Your task to perform on an android device: Show me recent news Image 0: 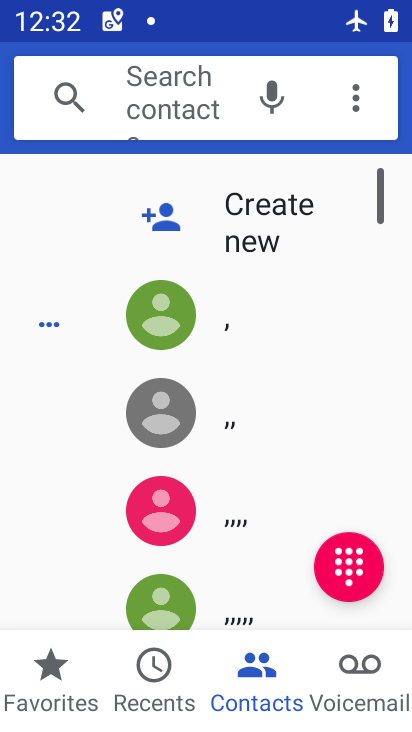
Step 0: press home button
Your task to perform on an android device: Show me recent news Image 1: 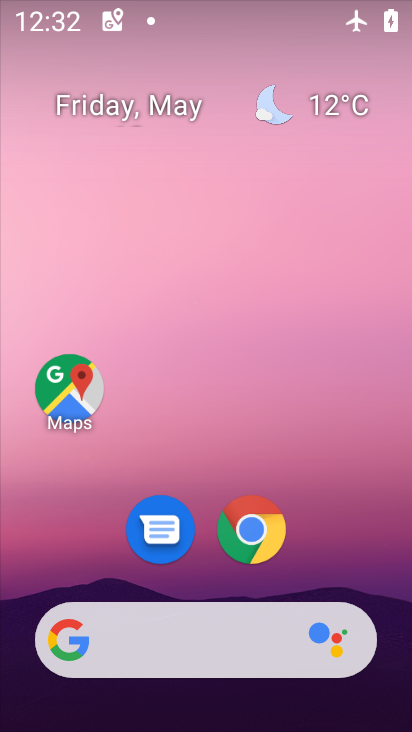
Step 1: drag from (354, 501) to (342, 224)
Your task to perform on an android device: Show me recent news Image 2: 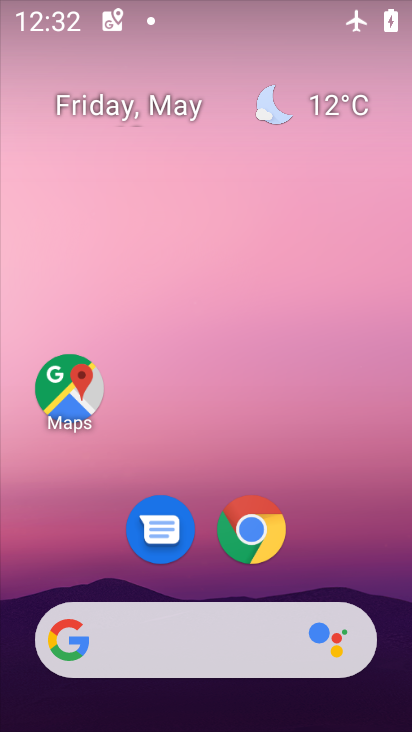
Step 2: drag from (324, 389) to (324, 222)
Your task to perform on an android device: Show me recent news Image 3: 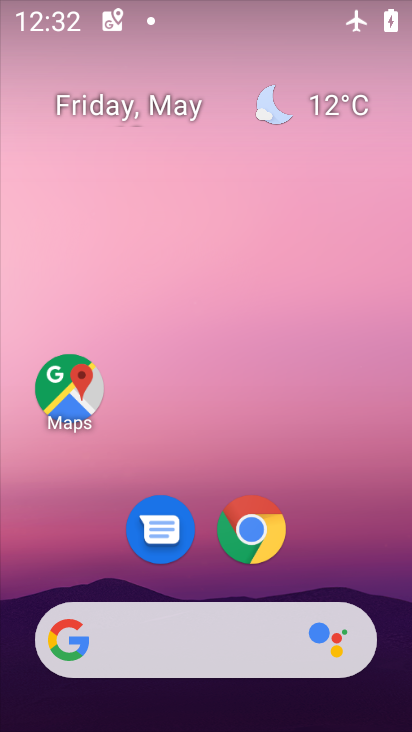
Step 3: drag from (220, 324) to (220, 237)
Your task to perform on an android device: Show me recent news Image 4: 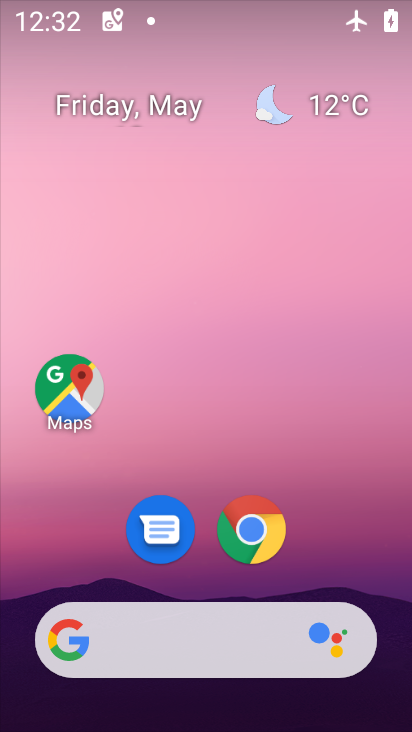
Step 4: drag from (190, 593) to (195, 250)
Your task to perform on an android device: Show me recent news Image 5: 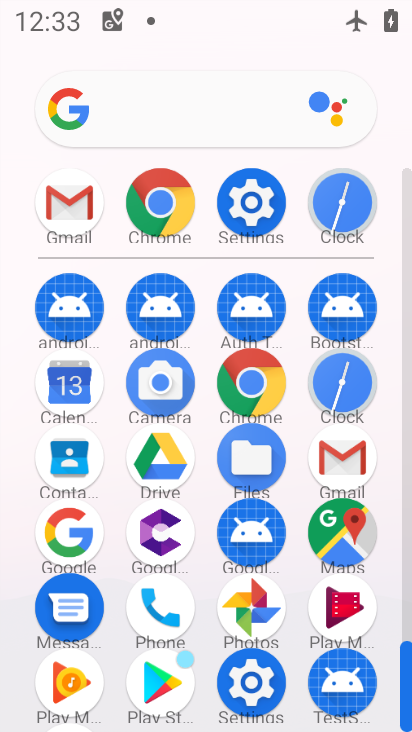
Step 5: click (250, 374)
Your task to perform on an android device: Show me recent news Image 6: 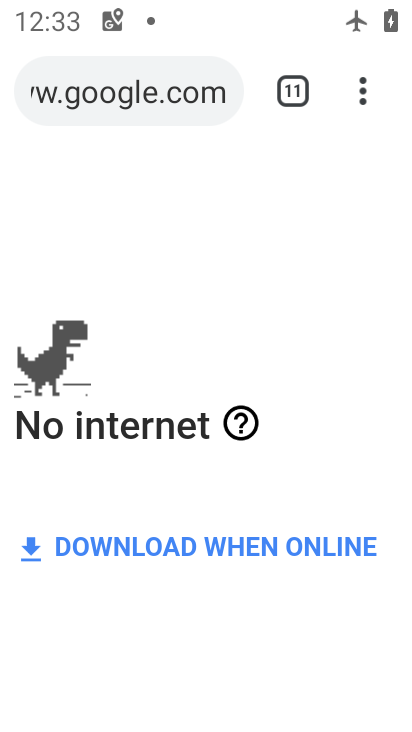
Step 6: click (352, 86)
Your task to perform on an android device: Show me recent news Image 7: 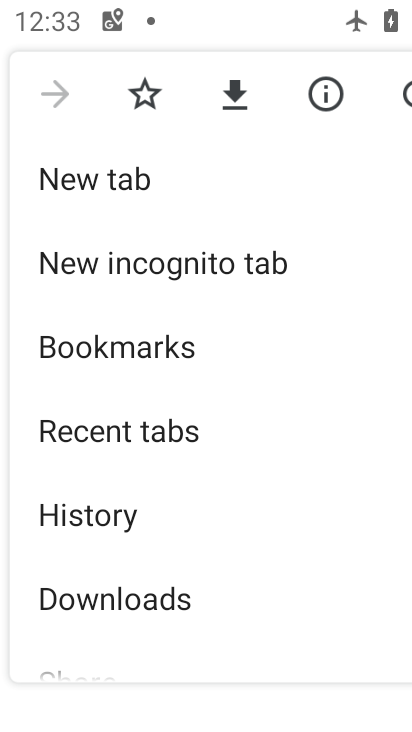
Step 7: click (90, 165)
Your task to perform on an android device: Show me recent news Image 8: 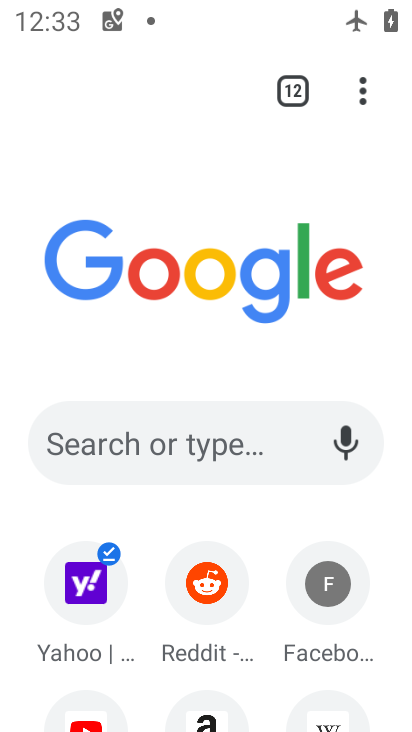
Step 8: click (223, 462)
Your task to perform on an android device: Show me recent news Image 9: 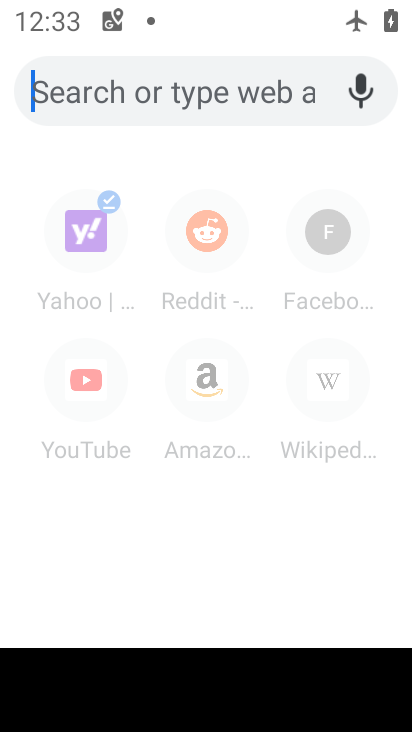
Step 9: type "Show me recent news"
Your task to perform on an android device: Show me recent news Image 10: 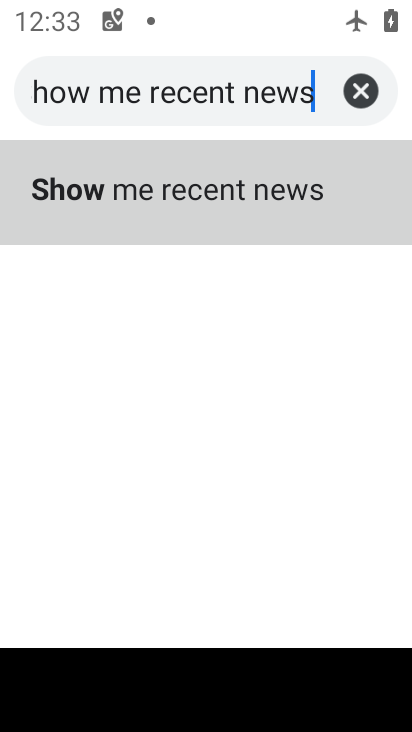
Step 10: click (141, 201)
Your task to perform on an android device: Show me recent news Image 11: 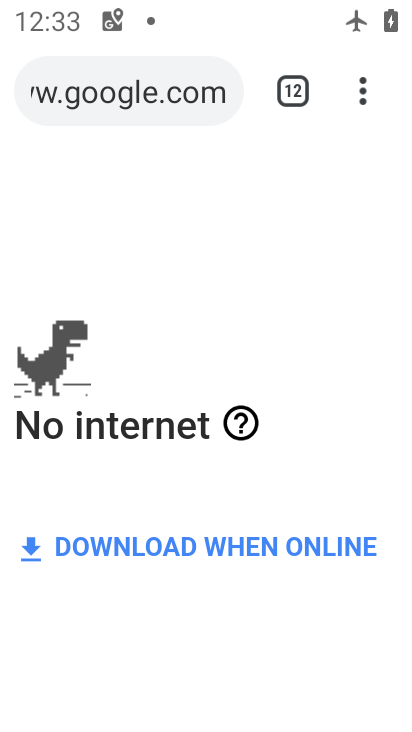
Step 11: task complete